Your task to perform on an android device: Look up the best rated 5.1 home theater speakers on Walmart. Image 0: 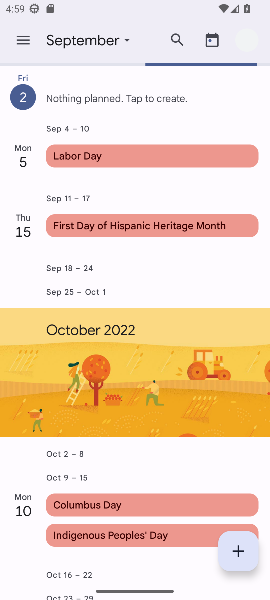
Step 0: press home button
Your task to perform on an android device: Look up the best rated 5.1 home theater speakers on Walmart. Image 1: 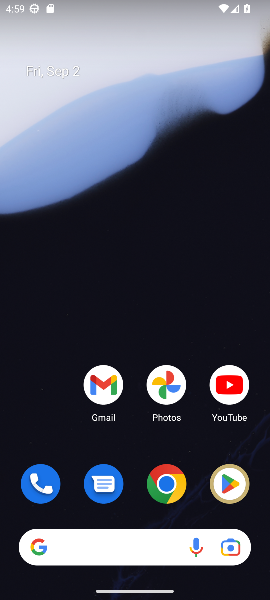
Step 1: click (168, 472)
Your task to perform on an android device: Look up the best rated 5.1 home theater speakers on Walmart. Image 2: 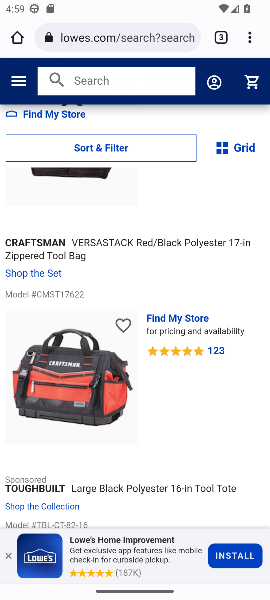
Step 2: click (122, 36)
Your task to perform on an android device: Look up the best rated 5.1 home theater speakers on Walmart. Image 3: 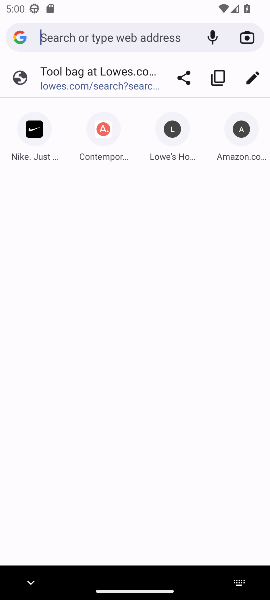
Step 3: type "Walmart"
Your task to perform on an android device: Look up the best rated 5.1 home theater speakers on Walmart. Image 4: 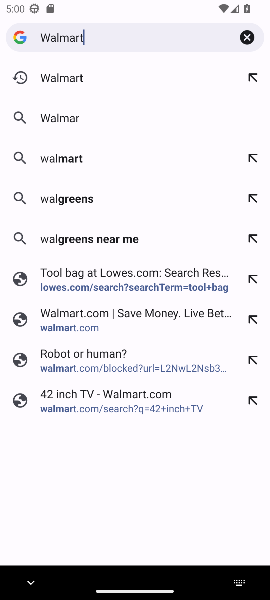
Step 4: press enter
Your task to perform on an android device: Look up the best rated 5.1 home theater speakers on Walmart. Image 5: 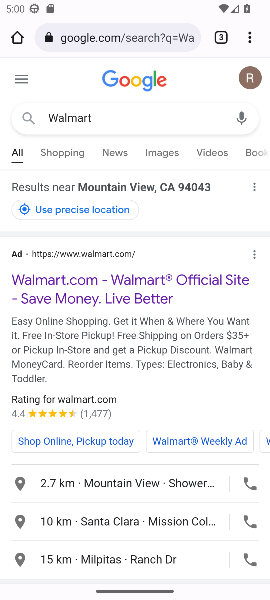
Step 5: drag from (127, 488) to (179, 315)
Your task to perform on an android device: Look up the best rated 5.1 home theater speakers on Walmart. Image 6: 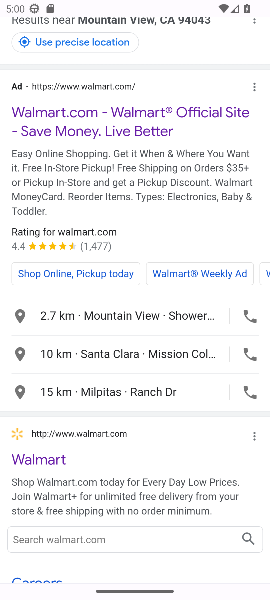
Step 6: click (36, 455)
Your task to perform on an android device: Look up the best rated 5.1 home theater speakers on Walmart. Image 7: 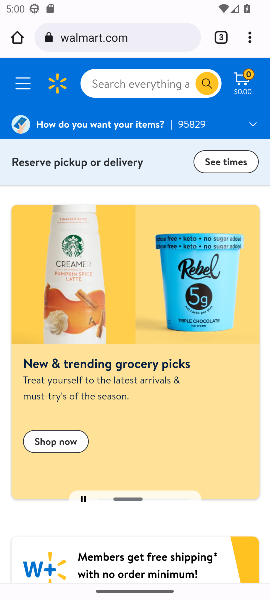
Step 7: click (140, 77)
Your task to perform on an android device: Look up the best rated 5.1 home theater speakers on Walmart. Image 8: 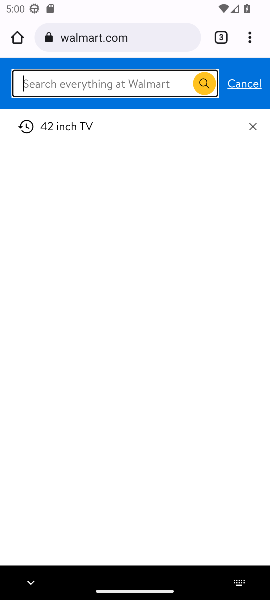
Step 8: type "5.1 home theater speakers"
Your task to perform on an android device: Look up the best rated 5.1 home theater speakers on Walmart. Image 9: 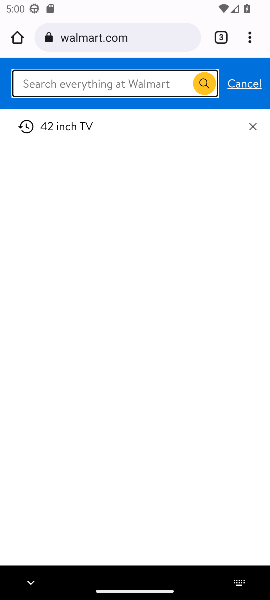
Step 9: press enter
Your task to perform on an android device: Look up the best rated 5.1 home theater speakers on Walmart. Image 10: 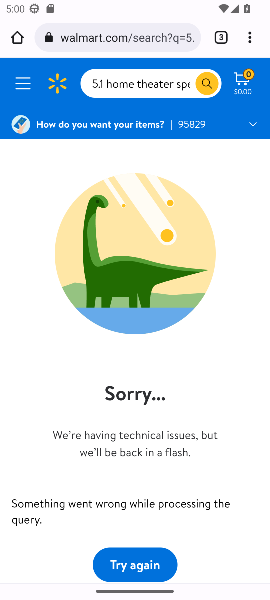
Step 10: click (137, 565)
Your task to perform on an android device: Look up the best rated 5.1 home theater speakers on Walmart. Image 11: 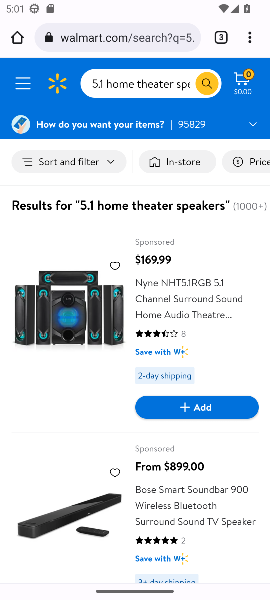
Step 11: task complete